Your task to perform on an android device: toggle translation in the chrome app Image 0: 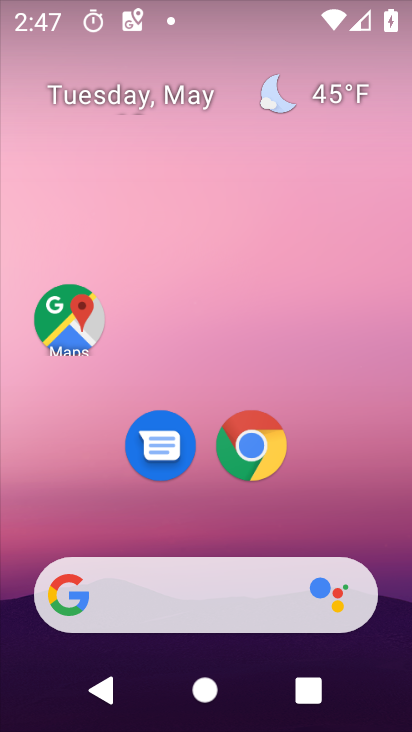
Step 0: click (261, 438)
Your task to perform on an android device: toggle translation in the chrome app Image 1: 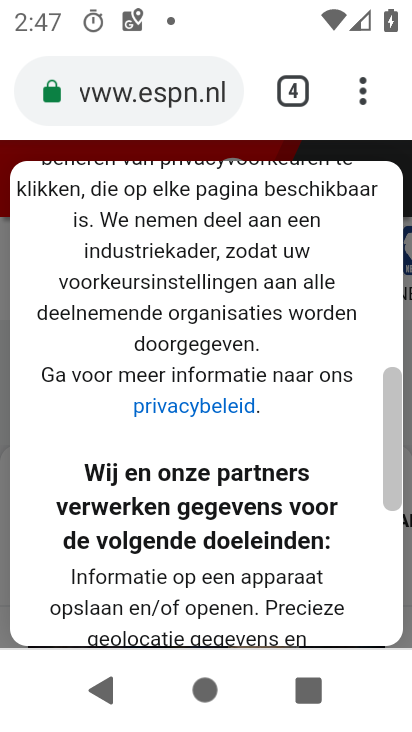
Step 1: drag from (363, 85) to (95, 448)
Your task to perform on an android device: toggle translation in the chrome app Image 2: 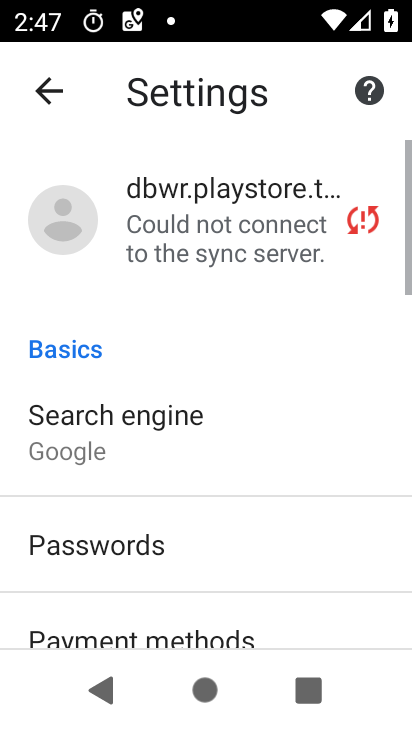
Step 2: drag from (183, 571) to (378, 67)
Your task to perform on an android device: toggle translation in the chrome app Image 3: 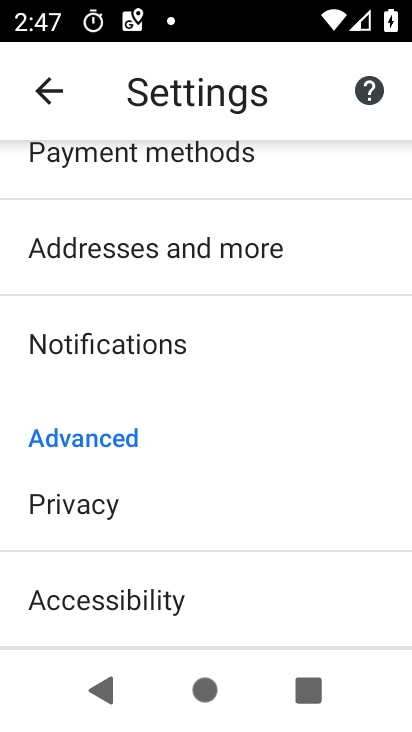
Step 3: drag from (156, 599) to (351, 151)
Your task to perform on an android device: toggle translation in the chrome app Image 4: 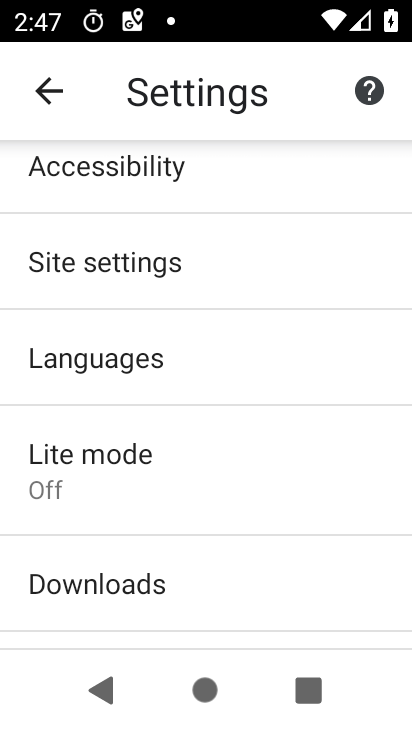
Step 4: click (130, 373)
Your task to perform on an android device: toggle translation in the chrome app Image 5: 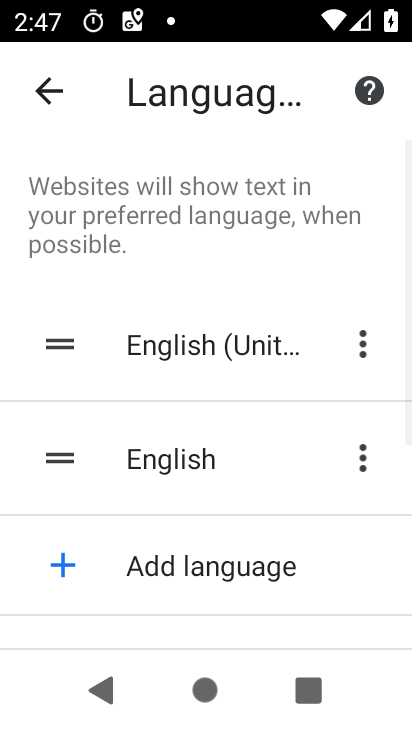
Step 5: drag from (203, 596) to (367, 144)
Your task to perform on an android device: toggle translation in the chrome app Image 6: 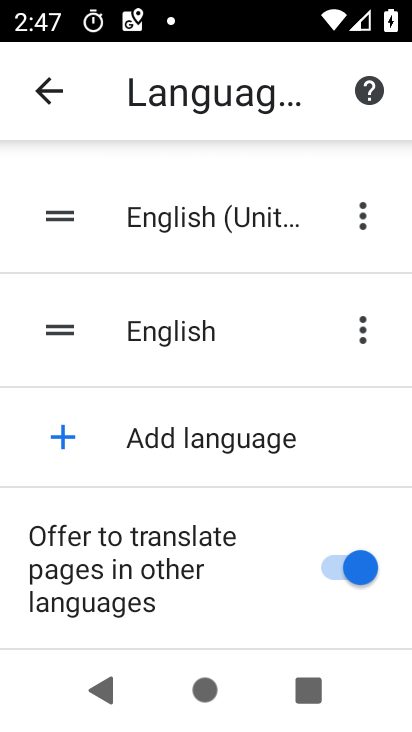
Step 6: click (347, 568)
Your task to perform on an android device: toggle translation in the chrome app Image 7: 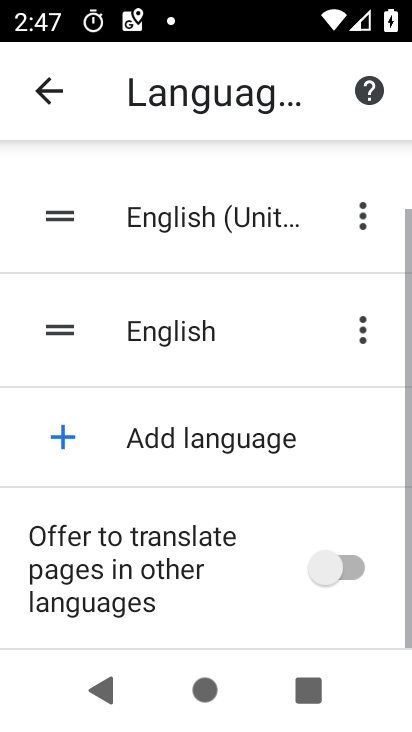
Step 7: task complete